Your task to perform on an android device: delete browsing data in the chrome app Image 0: 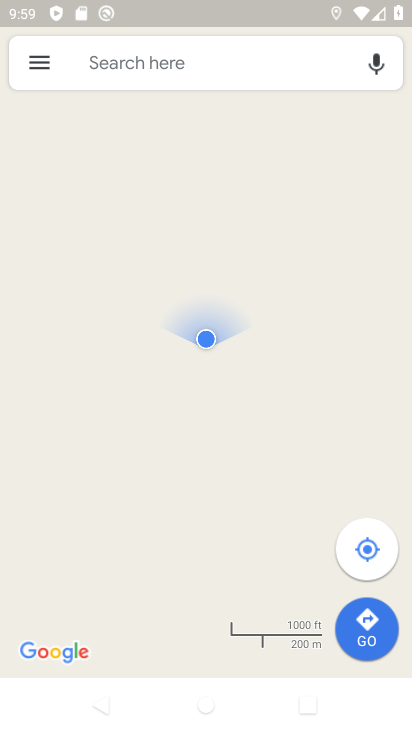
Step 0: press home button
Your task to perform on an android device: delete browsing data in the chrome app Image 1: 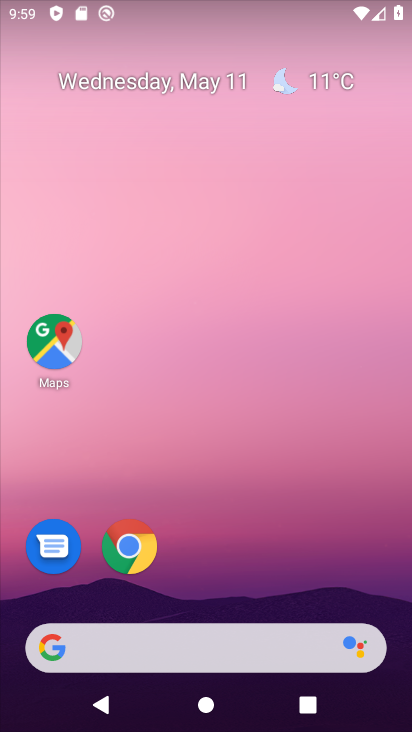
Step 1: drag from (187, 605) to (229, 65)
Your task to perform on an android device: delete browsing data in the chrome app Image 2: 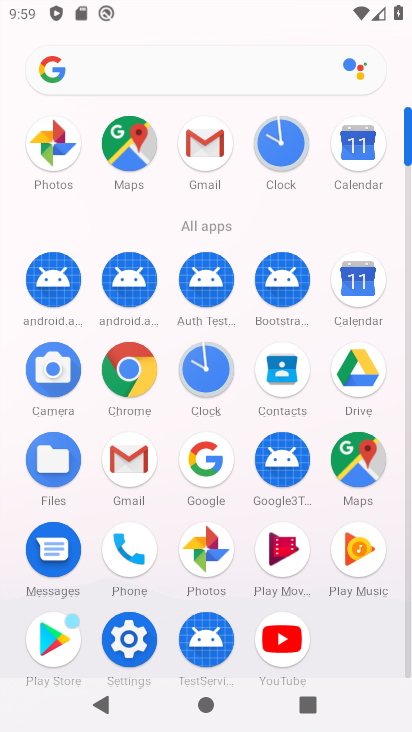
Step 2: click (137, 362)
Your task to perform on an android device: delete browsing data in the chrome app Image 3: 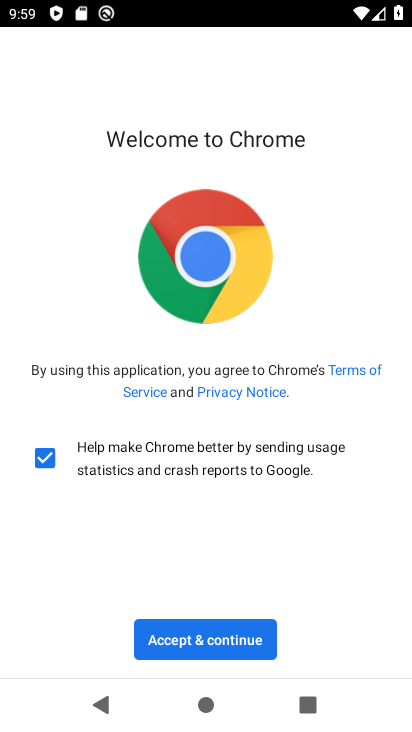
Step 3: click (203, 641)
Your task to perform on an android device: delete browsing data in the chrome app Image 4: 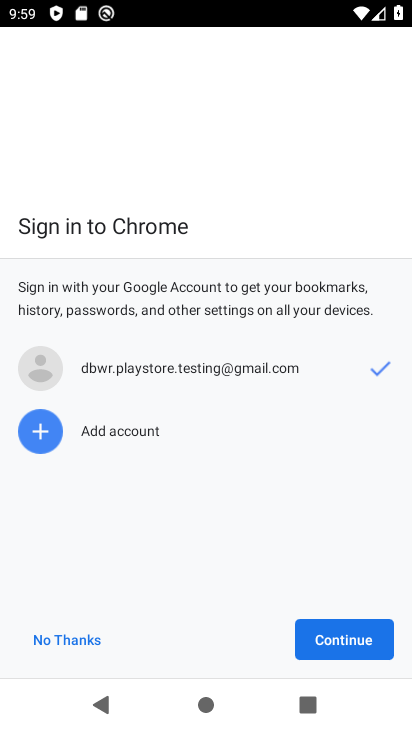
Step 4: click (319, 631)
Your task to perform on an android device: delete browsing data in the chrome app Image 5: 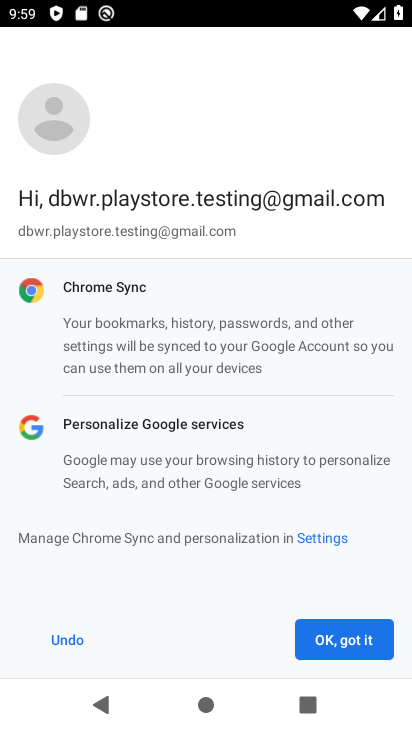
Step 5: click (319, 631)
Your task to perform on an android device: delete browsing data in the chrome app Image 6: 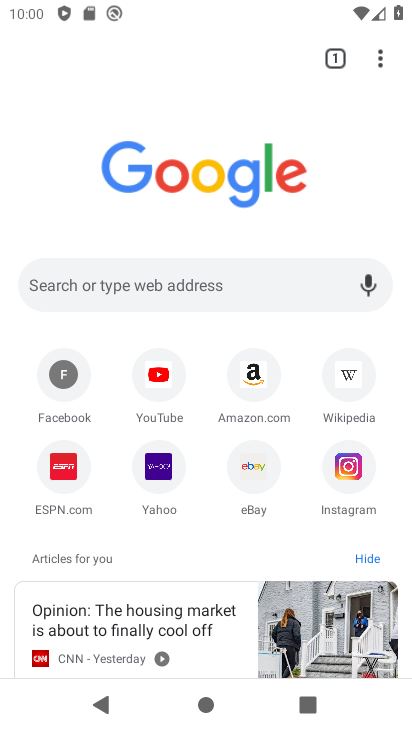
Step 6: click (376, 58)
Your task to perform on an android device: delete browsing data in the chrome app Image 7: 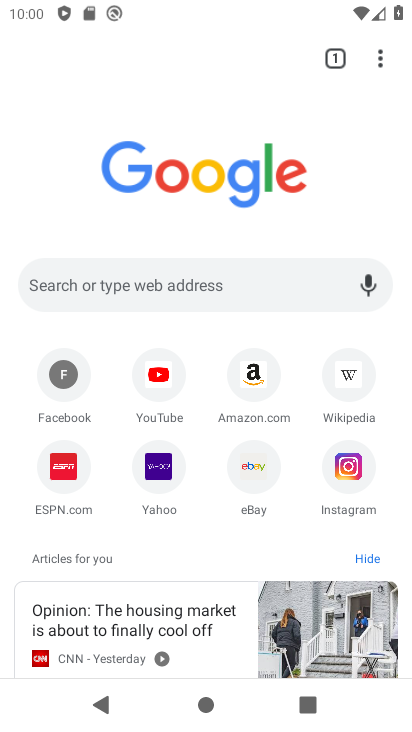
Step 7: drag from (376, 58) to (144, 487)
Your task to perform on an android device: delete browsing data in the chrome app Image 8: 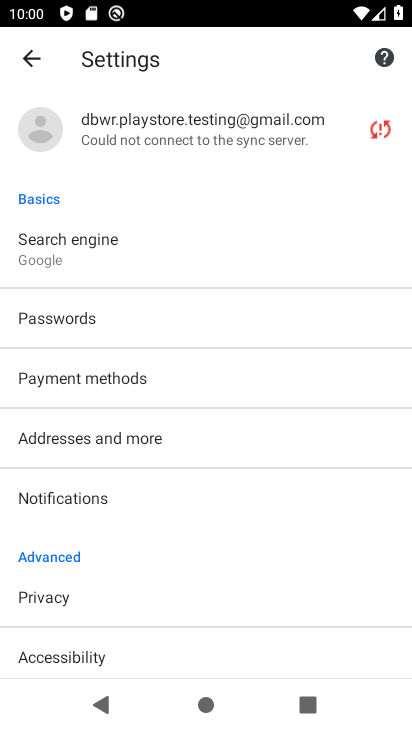
Step 8: click (45, 600)
Your task to perform on an android device: delete browsing data in the chrome app Image 9: 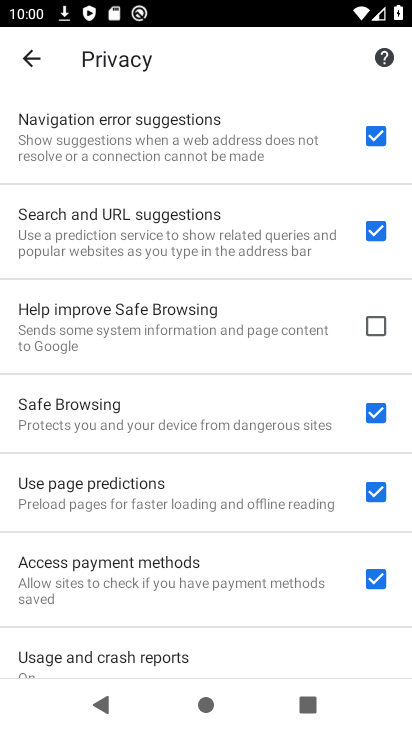
Step 9: drag from (302, 599) to (308, 203)
Your task to perform on an android device: delete browsing data in the chrome app Image 10: 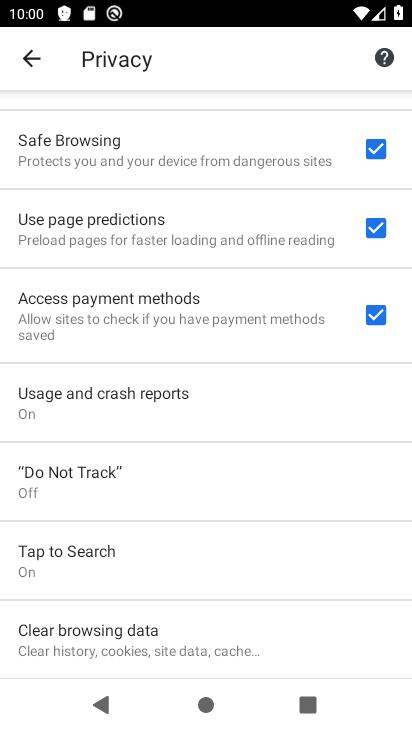
Step 10: drag from (232, 522) to (284, 218)
Your task to perform on an android device: delete browsing data in the chrome app Image 11: 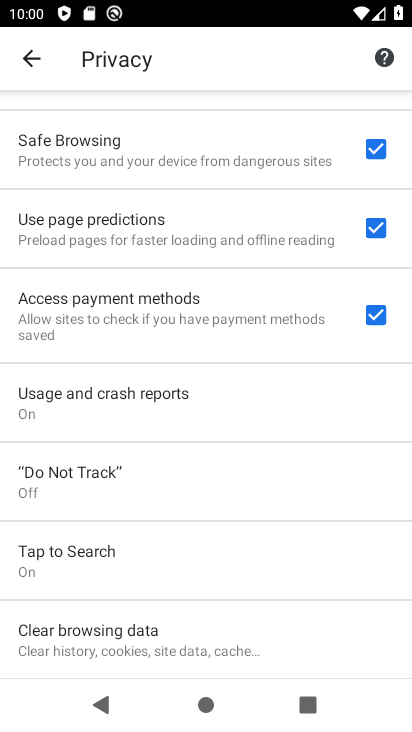
Step 11: click (62, 628)
Your task to perform on an android device: delete browsing data in the chrome app Image 12: 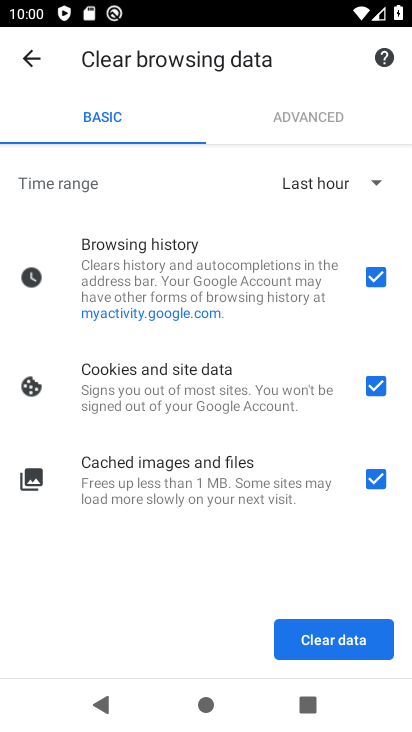
Step 12: click (313, 643)
Your task to perform on an android device: delete browsing data in the chrome app Image 13: 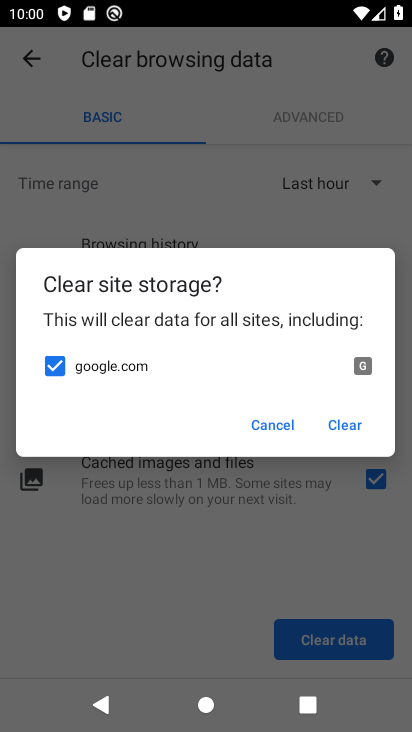
Step 13: click (349, 418)
Your task to perform on an android device: delete browsing data in the chrome app Image 14: 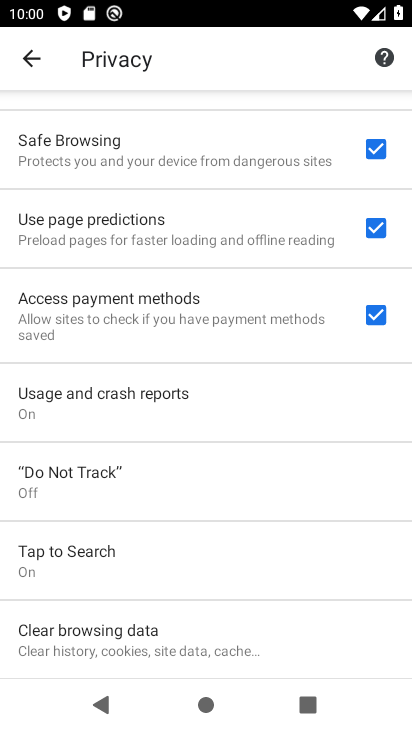
Step 14: task complete